Your task to perform on an android device: turn on translation in the chrome app Image 0: 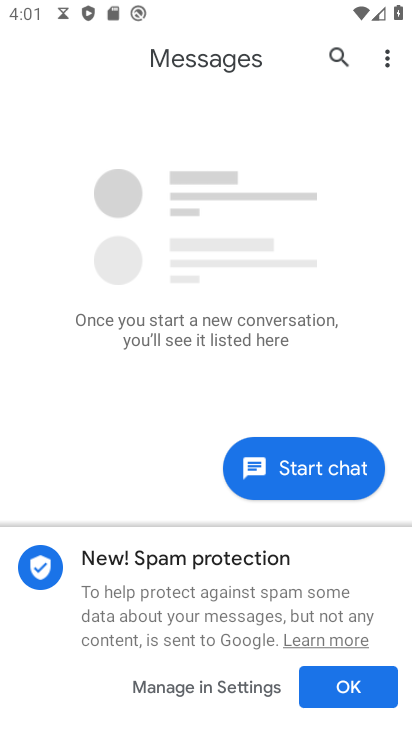
Step 0: press home button
Your task to perform on an android device: turn on translation in the chrome app Image 1: 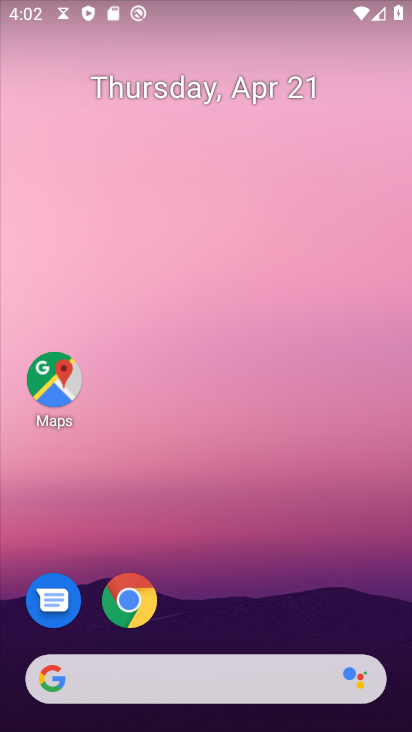
Step 1: click (127, 599)
Your task to perform on an android device: turn on translation in the chrome app Image 2: 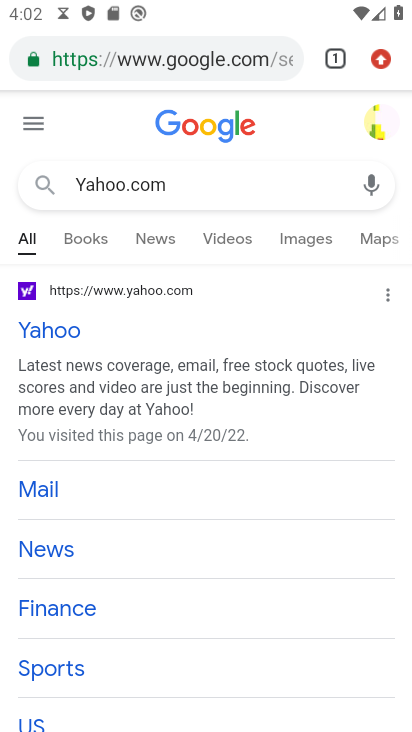
Step 2: click (382, 62)
Your task to perform on an android device: turn on translation in the chrome app Image 3: 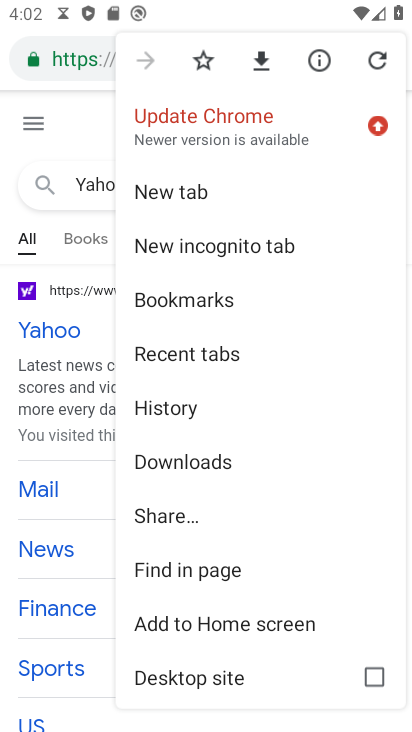
Step 3: drag from (217, 484) to (260, 361)
Your task to perform on an android device: turn on translation in the chrome app Image 4: 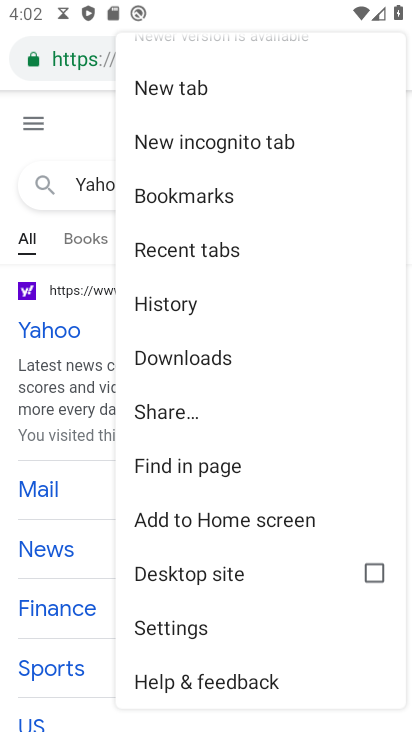
Step 4: drag from (275, 497) to (292, 416)
Your task to perform on an android device: turn on translation in the chrome app Image 5: 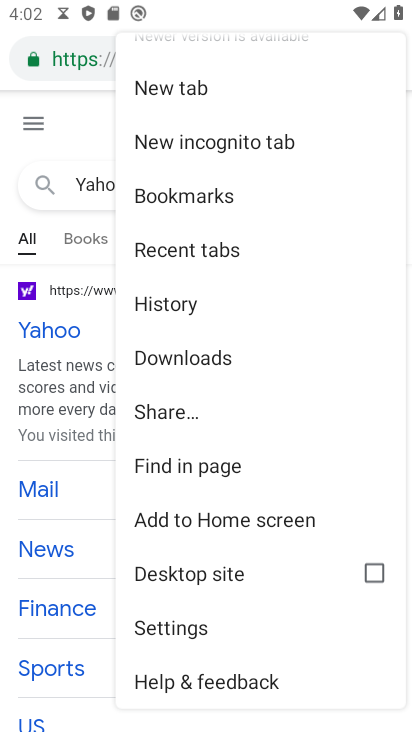
Step 5: click (184, 623)
Your task to perform on an android device: turn on translation in the chrome app Image 6: 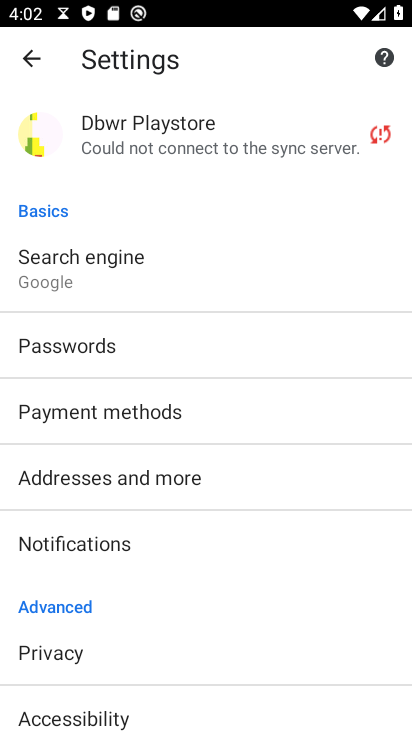
Step 6: drag from (151, 590) to (207, 348)
Your task to perform on an android device: turn on translation in the chrome app Image 7: 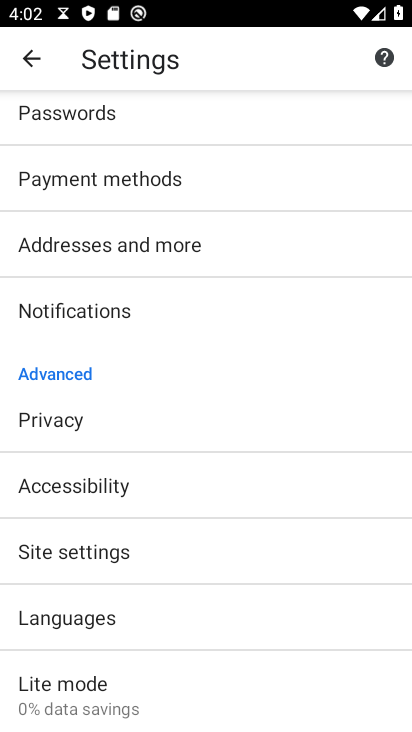
Step 7: click (96, 616)
Your task to perform on an android device: turn on translation in the chrome app Image 8: 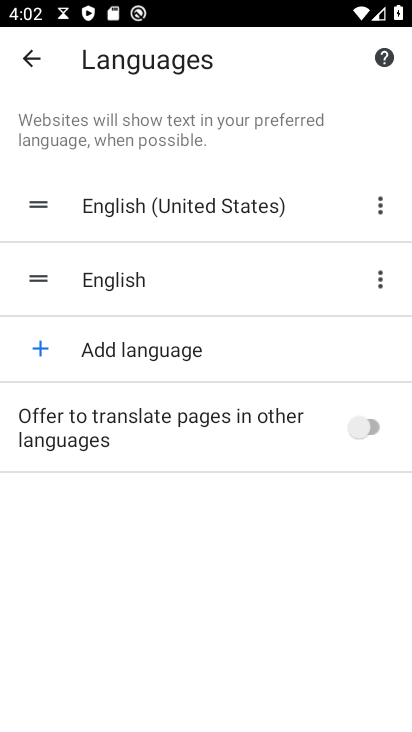
Step 8: click (356, 425)
Your task to perform on an android device: turn on translation in the chrome app Image 9: 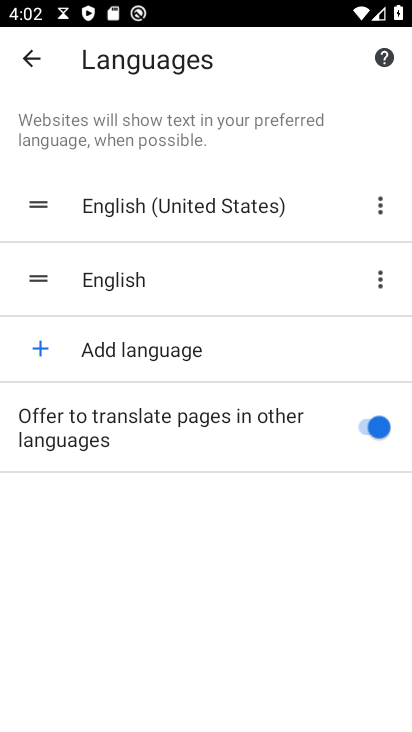
Step 9: task complete